Your task to perform on an android device: Go to eBay Image 0: 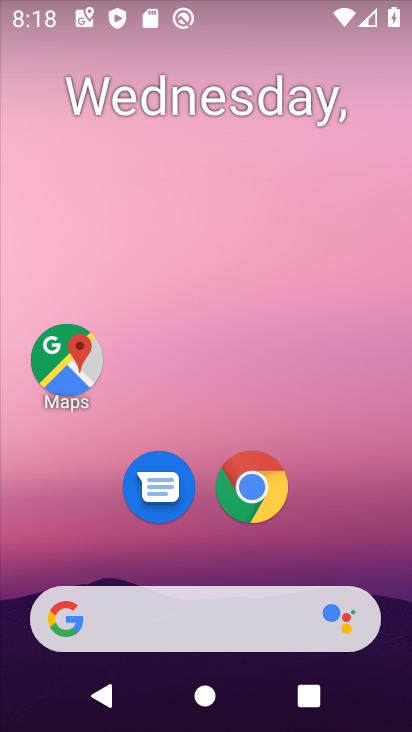
Step 0: drag from (264, 729) to (135, 39)
Your task to perform on an android device: Go to eBay Image 1: 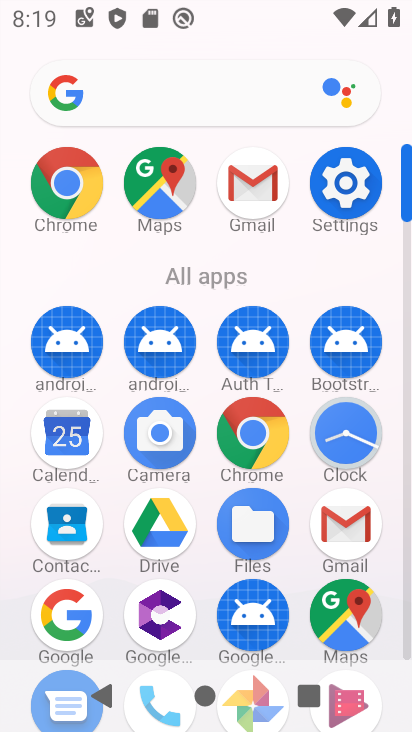
Step 1: click (251, 421)
Your task to perform on an android device: Go to eBay Image 2: 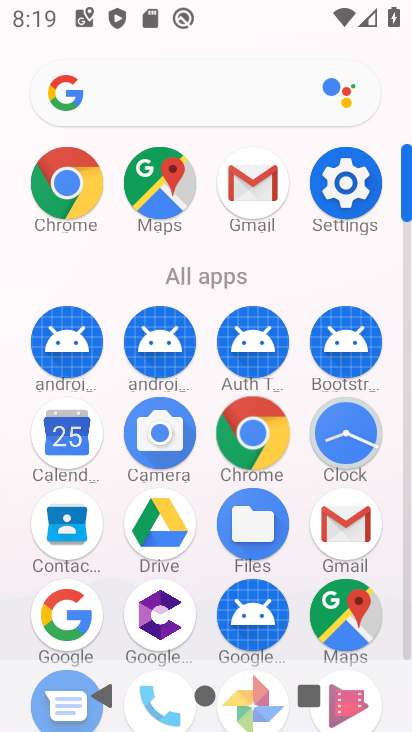
Step 2: click (252, 422)
Your task to perform on an android device: Go to eBay Image 3: 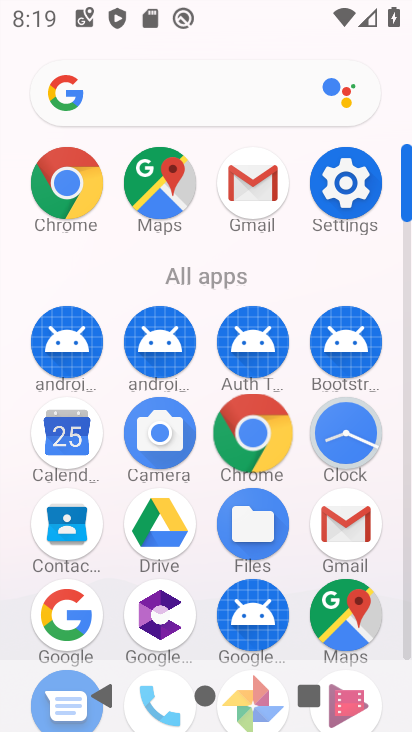
Step 3: click (252, 422)
Your task to perform on an android device: Go to eBay Image 4: 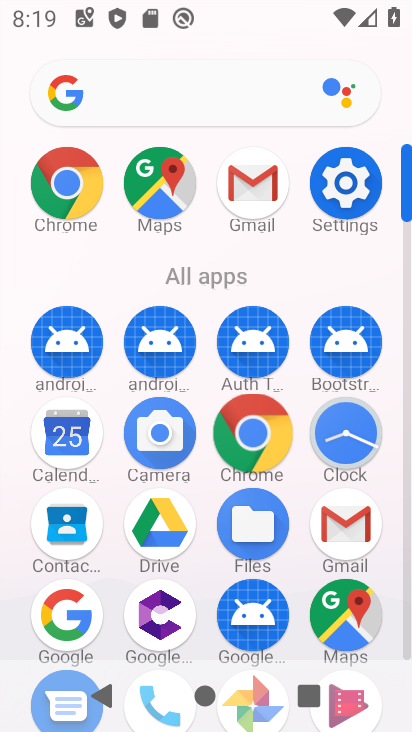
Step 4: click (252, 422)
Your task to perform on an android device: Go to eBay Image 5: 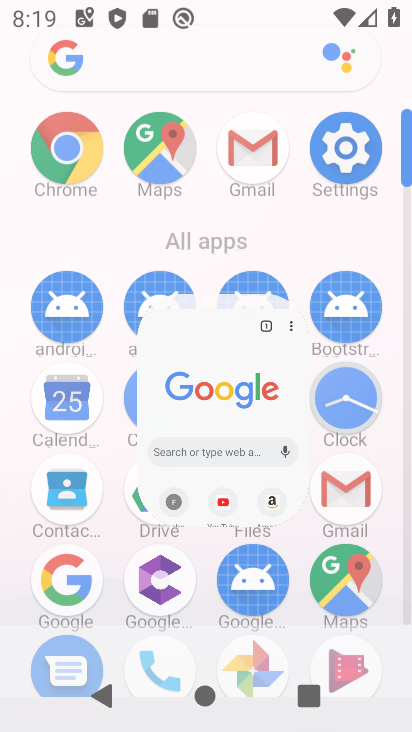
Step 5: click (256, 421)
Your task to perform on an android device: Go to eBay Image 6: 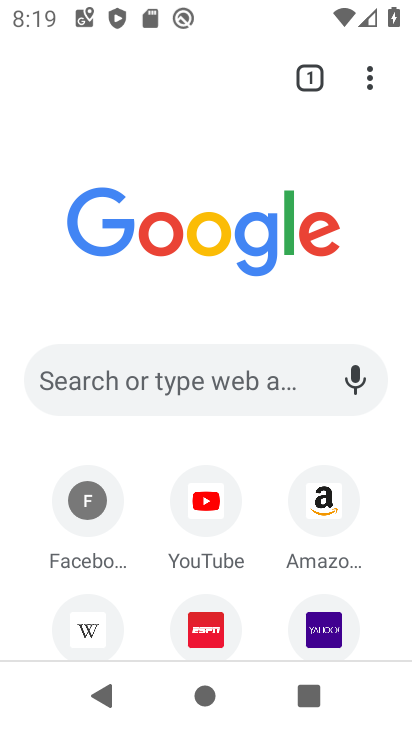
Step 6: click (256, 421)
Your task to perform on an android device: Go to eBay Image 7: 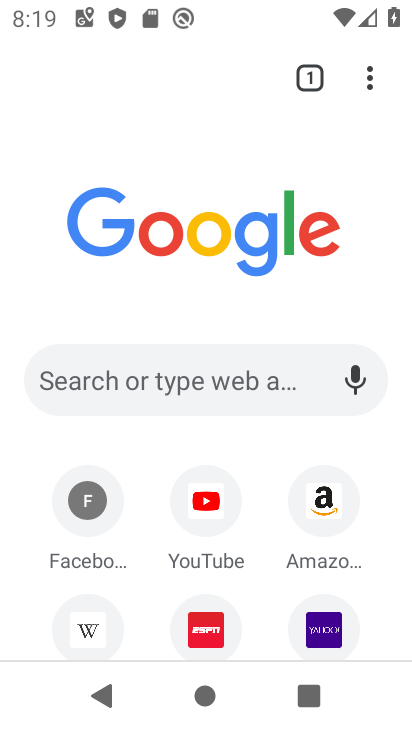
Step 7: click (256, 421)
Your task to perform on an android device: Go to eBay Image 8: 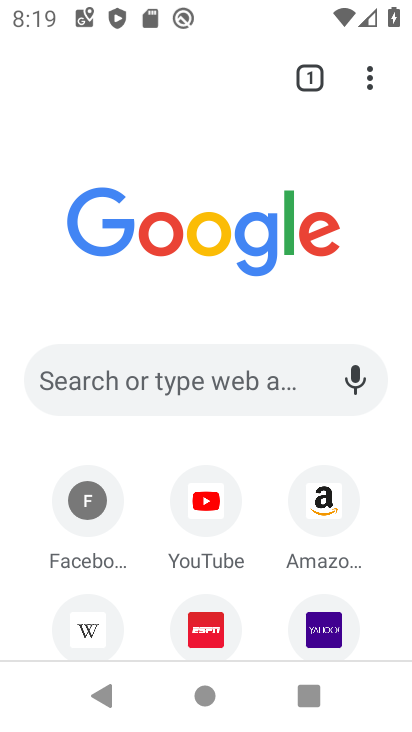
Step 8: drag from (221, 587) to (245, 226)
Your task to perform on an android device: Go to eBay Image 9: 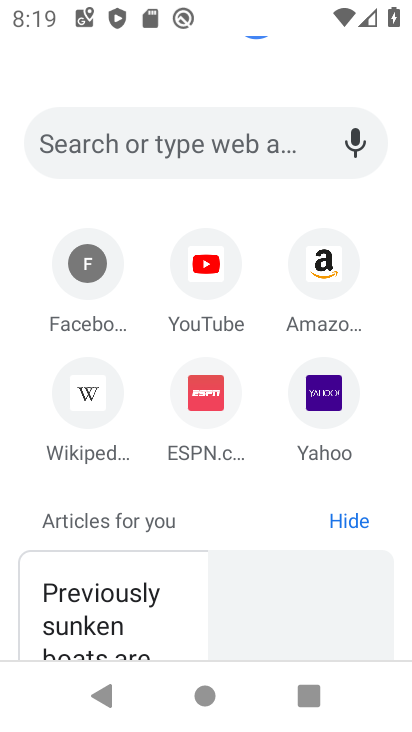
Step 9: drag from (279, 441) to (279, 179)
Your task to perform on an android device: Go to eBay Image 10: 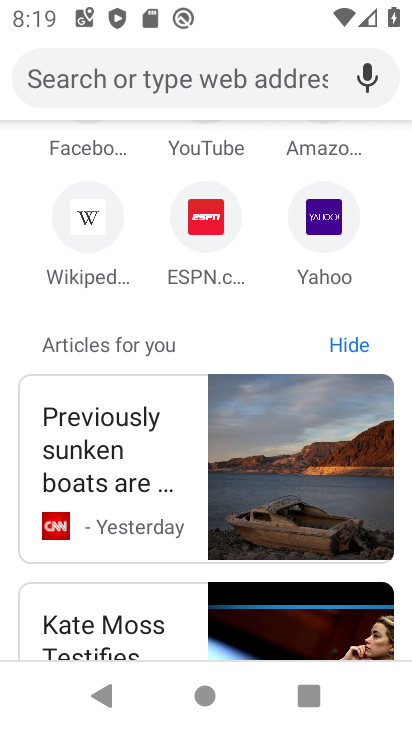
Step 10: press back button
Your task to perform on an android device: Go to eBay Image 11: 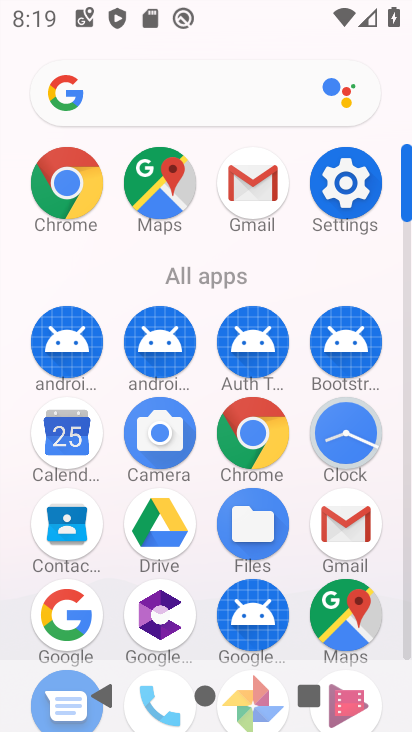
Step 11: click (76, 183)
Your task to perform on an android device: Go to eBay Image 12: 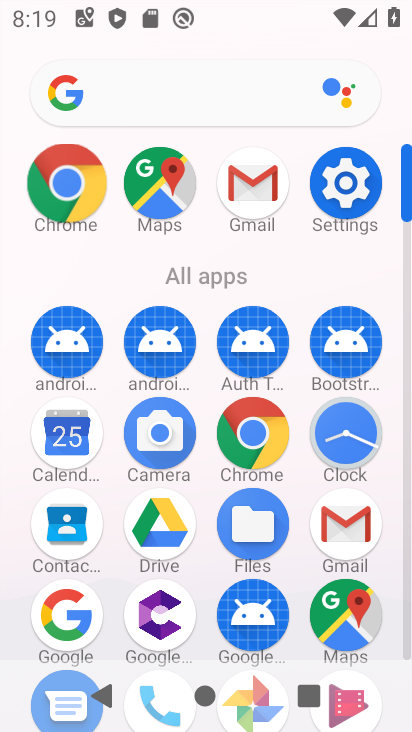
Step 12: click (76, 183)
Your task to perform on an android device: Go to eBay Image 13: 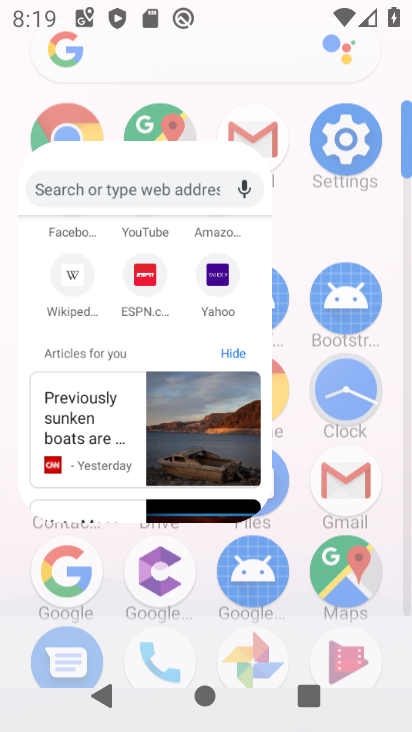
Step 13: click (76, 183)
Your task to perform on an android device: Go to eBay Image 14: 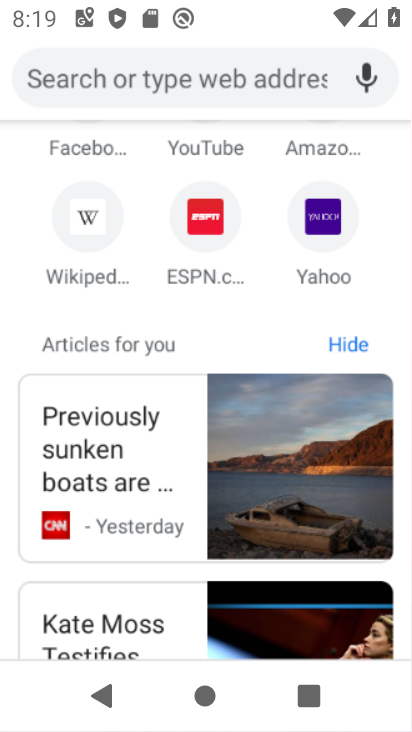
Step 14: click (76, 183)
Your task to perform on an android device: Go to eBay Image 15: 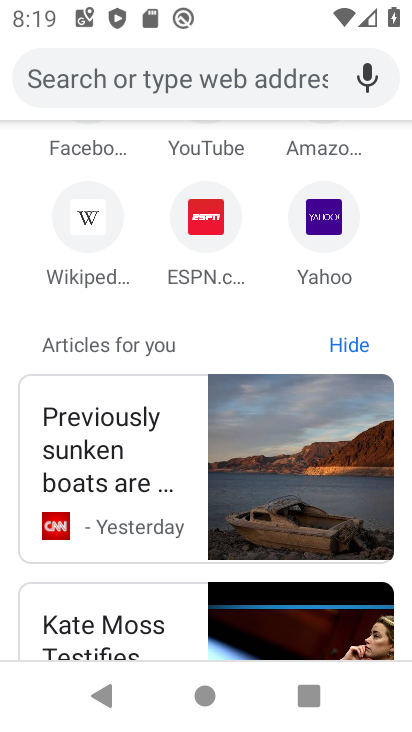
Step 15: drag from (198, 230) to (194, 529)
Your task to perform on an android device: Go to eBay Image 16: 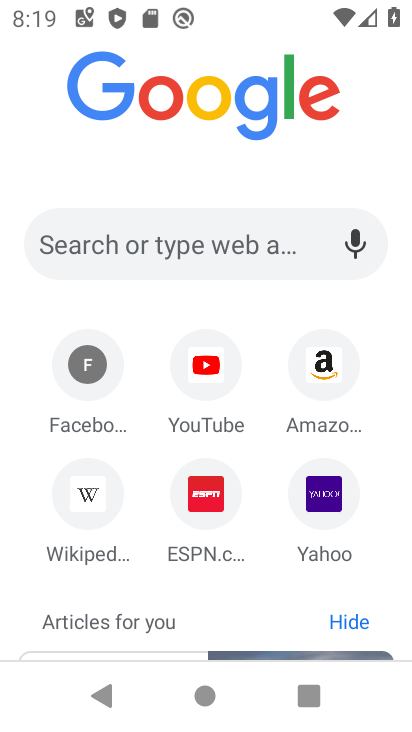
Step 16: click (162, 541)
Your task to perform on an android device: Go to eBay Image 17: 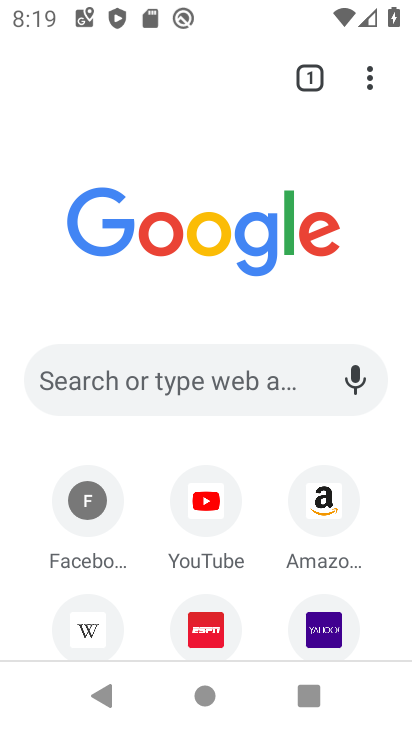
Step 17: click (74, 389)
Your task to perform on an android device: Go to eBay Image 18: 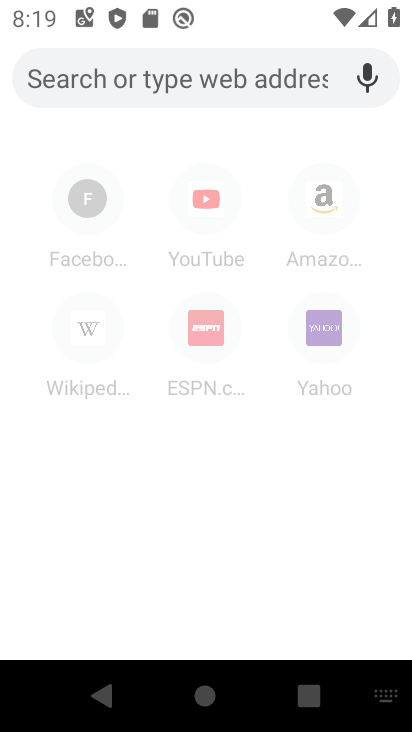
Step 18: type "ebay.com"
Your task to perform on an android device: Go to eBay Image 19: 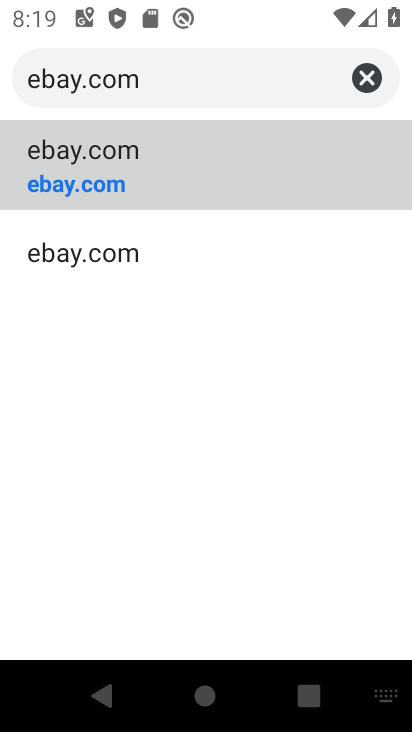
Step 19: click (52, 191)
Your task to perform on an android device: Go to eBay Image 20: 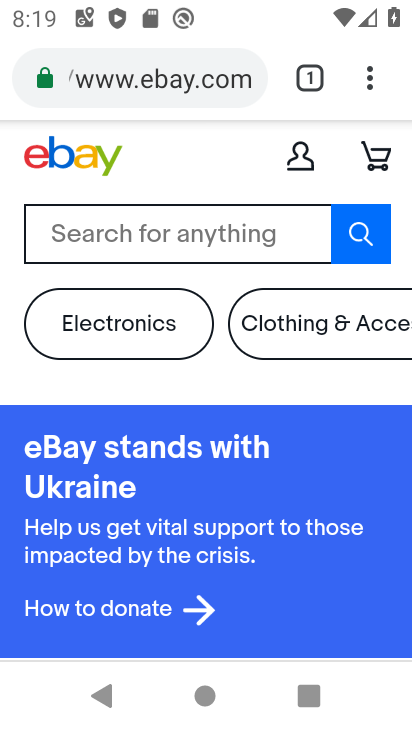
Step 20: task complete